Your task to perform on an android device: clear history in the chrome app Image 0: 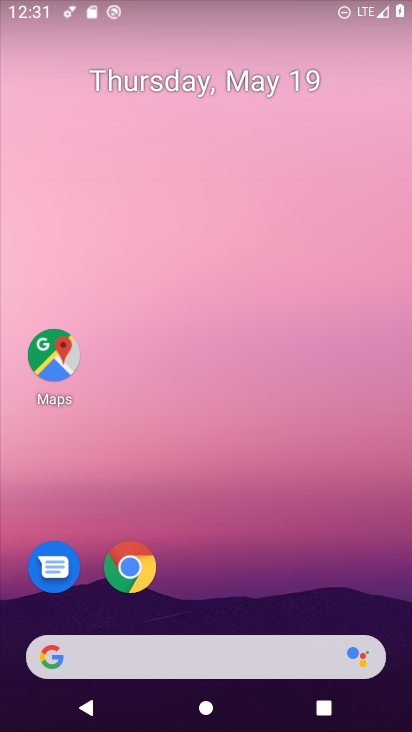
Step 0: click (119, 569)
Your task to perform on an android device: clear history in the chrome app Image 1: 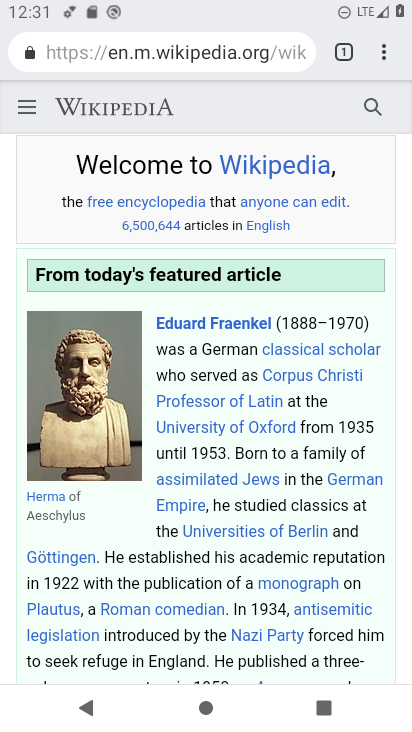
Step 1: click (380, 49)
Your task to perform on an android device: clear history in the chrome app Image 2: 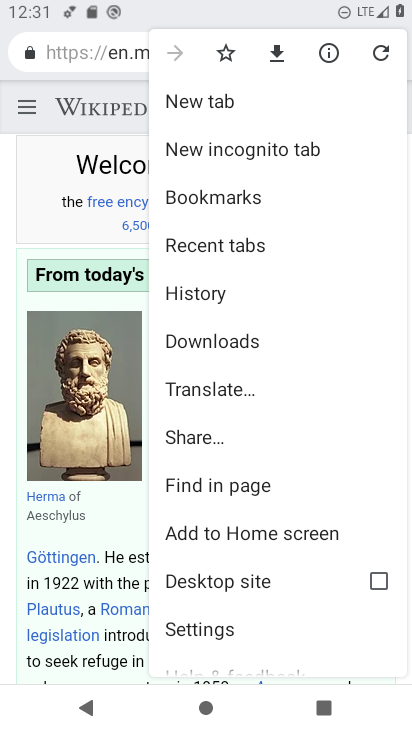
Step 2: click (218, 288)
Your task to perform on an android device: clear history in the chrome app Image 3: 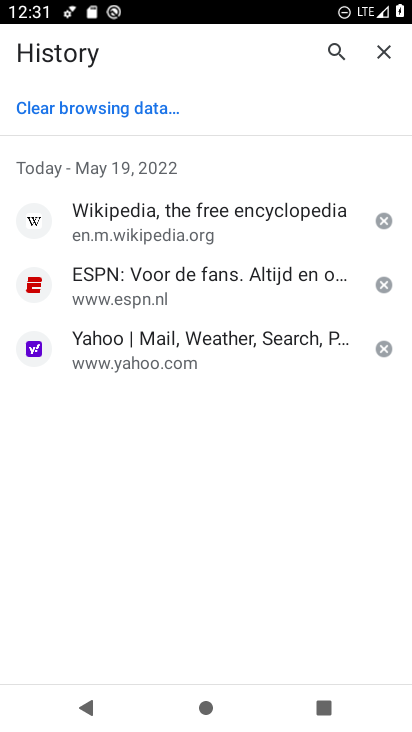
Step 3: click (145, 102)
Your task to perform on an android device: clear history in the chrome app Image 4: 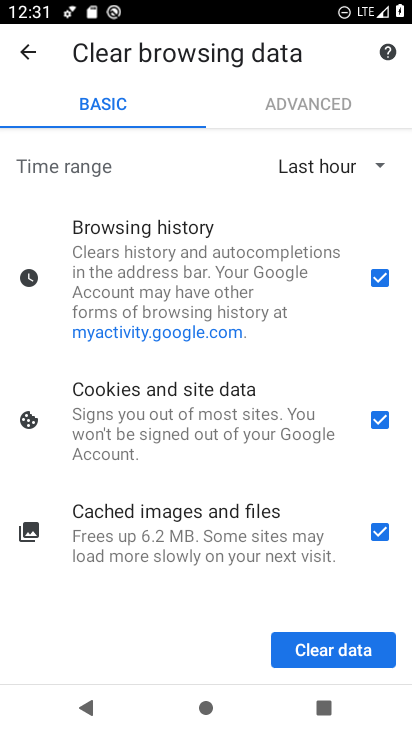
Step 4: click (374, 413)
Your task to perform on an android device: clear history in the chrome app Image 5: 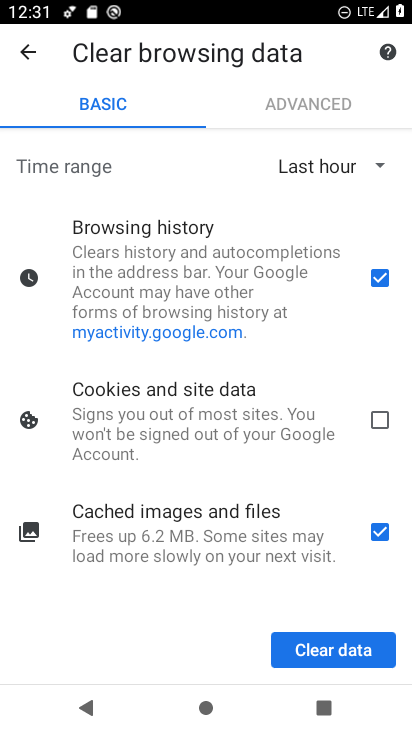
Step 5: click (374, 536)
Your task to perform on an android device: clear history in the chrome app Image 6: 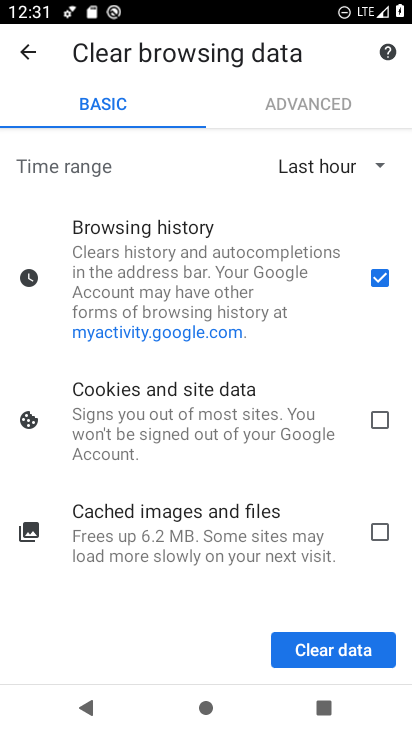
Step 6: click (351, 649)
Your task to perform on an android device: clear history in the chrome app Image 7: 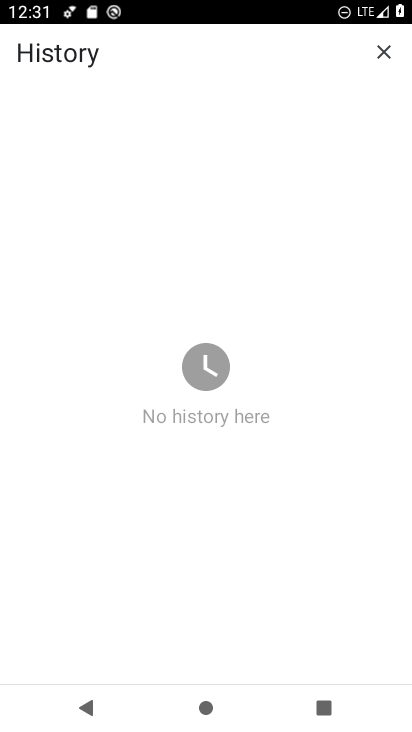
Step 7: task complete